Your task to perform on an android device: Open Google Chrome and click the shortcut for Amazon.com Image 0: 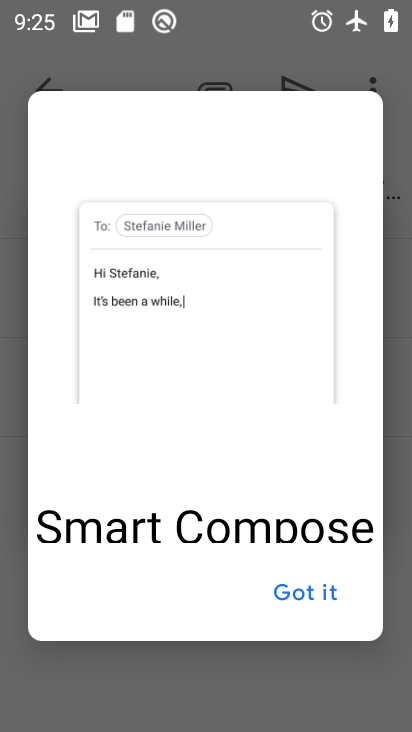
Step 0: press home button
Your task to perform on an android device: Open Google Chrome and click the shortcut for Amazon.com Image 1: 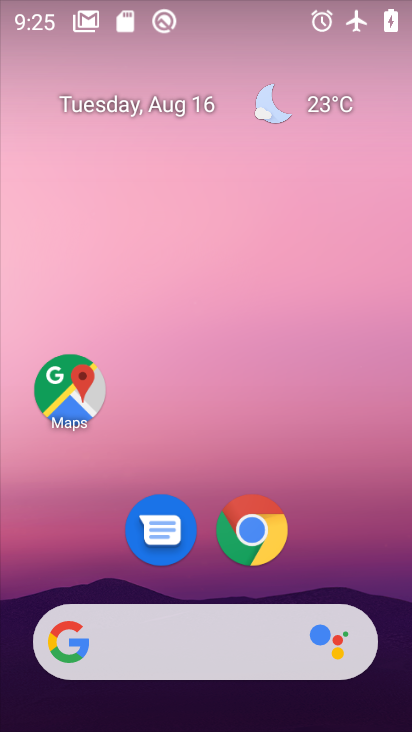
Step 1: click (256, 524)
Your task to perform on an android device: Open Google Chrome and click the shortcut for Amazon.com Image 2: 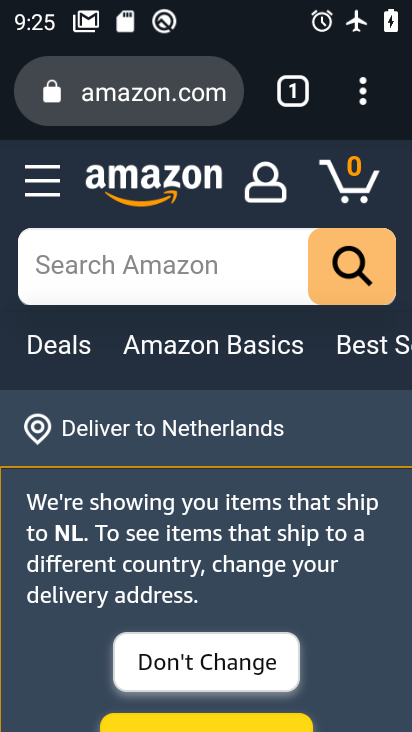
Step 2: drag from (360, 75) to (245, 186)
Your task to perform on an android device: Open Google Chrome and click the shortcut for Amazon.com Image 3: 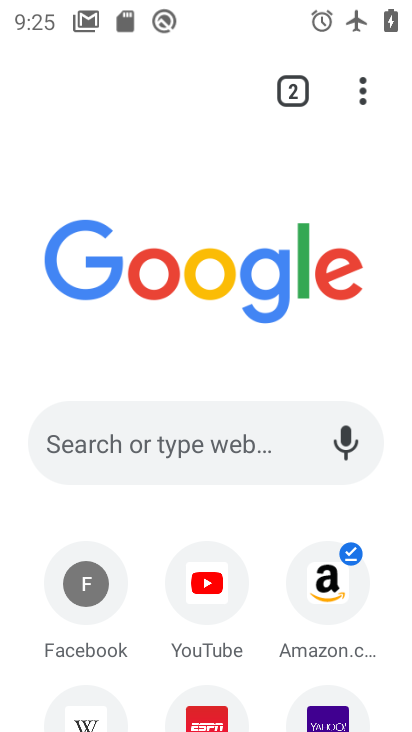
Step 3: click (320, 572)
Your task to perform on an android device: Open Google Chrome and click the shortcut for Amazon.com Image 4: 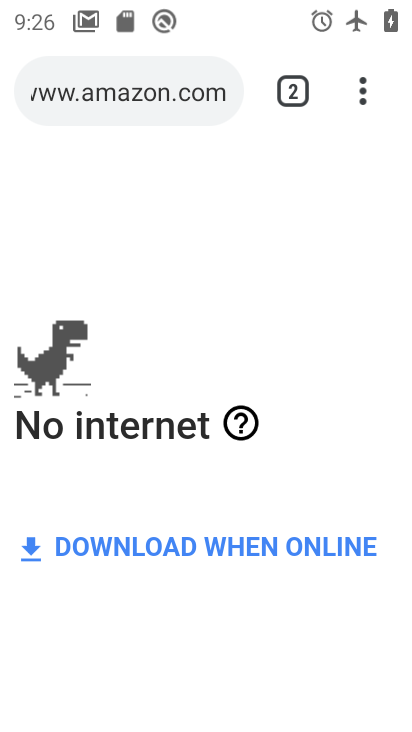
Step 4: task complete